Your task to perform on an android device: turn smart compose on in the gmail app Image 0: 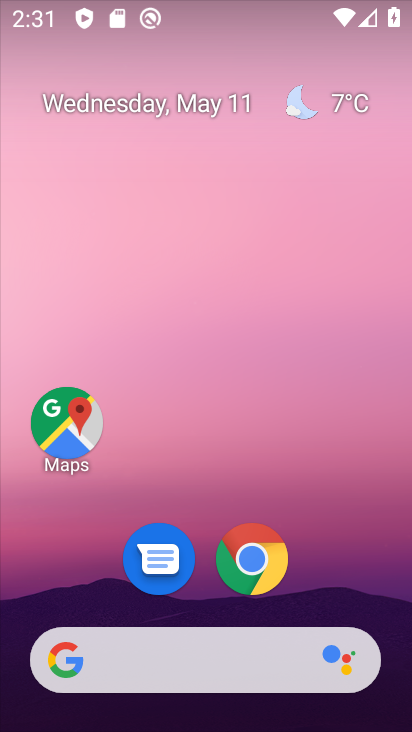
Step 0: drag from (356, 573) to (351, 107)
Your task to perform on an android device: turn smart compose on in the gmail app Image 1: 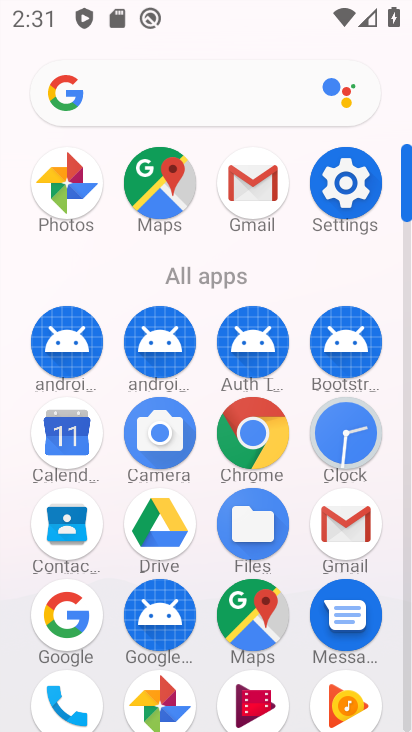
Step 1: click (351, 526)
Your task to perform on an android device: turn smart compose on in the gmail app Image 2: 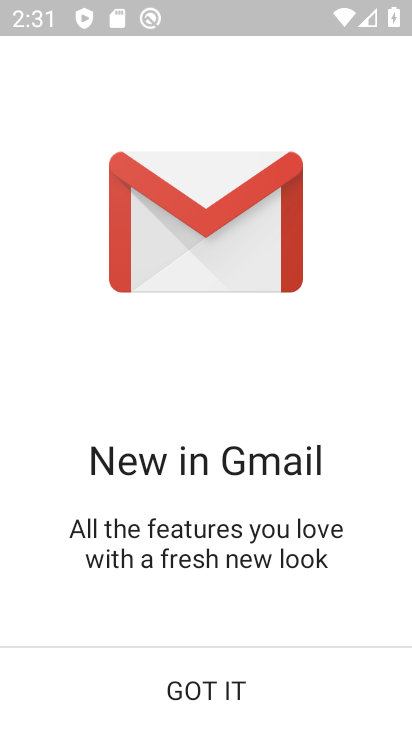
Step 2: click (192, 694)
Your task to perform on an android device: turn smart compose on in the gmail app Image 3: 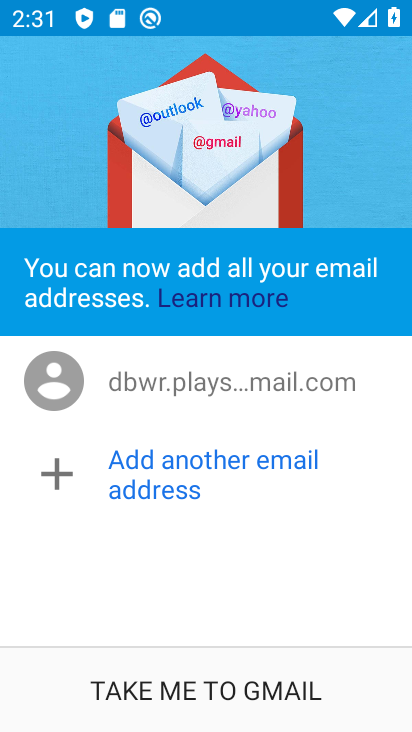
Step 3: click (193, 693)
Your task to perform on an android device: turn smart compose on in the gmail app Image 4: 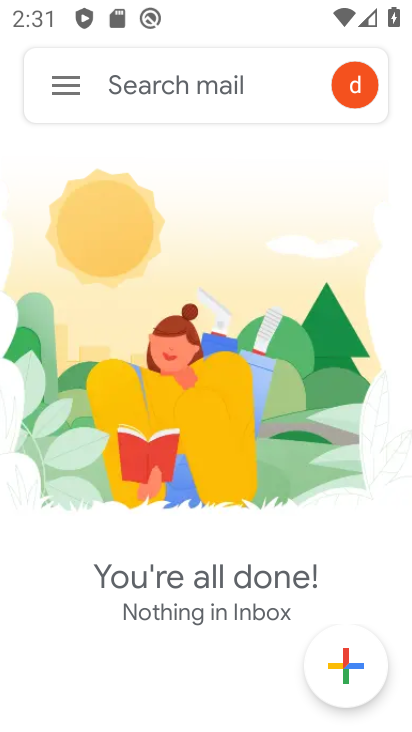
Step 4: click (61, 86)
Your task to perform on an android device: turn smart compose on in the gmail app Image 5: 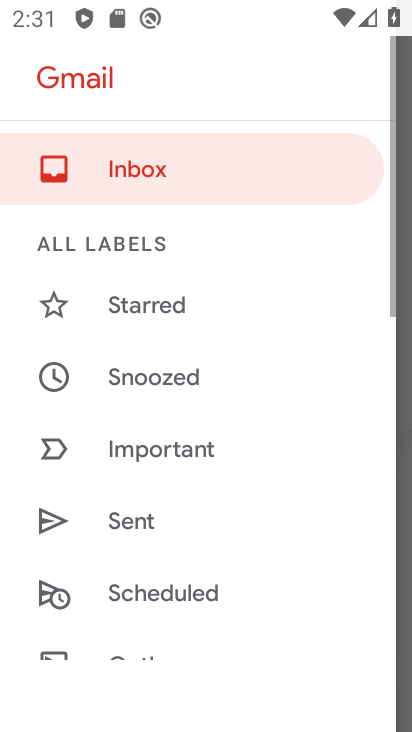
Step 5: drag from (190, 605) to (236, 267)
Your task to perform on an android device: turn smart compose on in the gmail app Image 6: 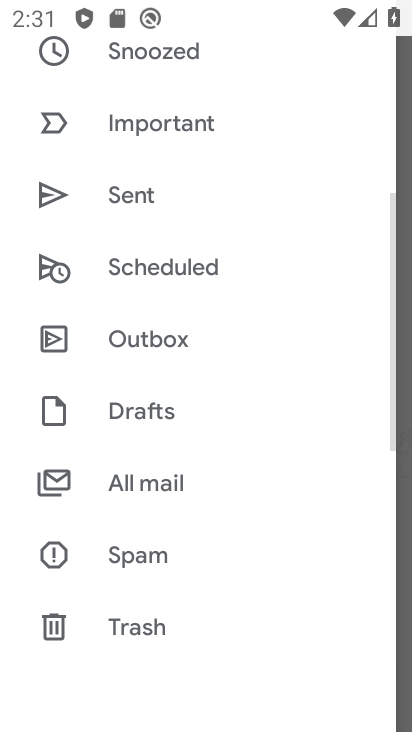
Step 6: drag from (196, 602) to (237, 208)
Your task to perform on an android device: turn smart compose on in the gmail app Image 7: 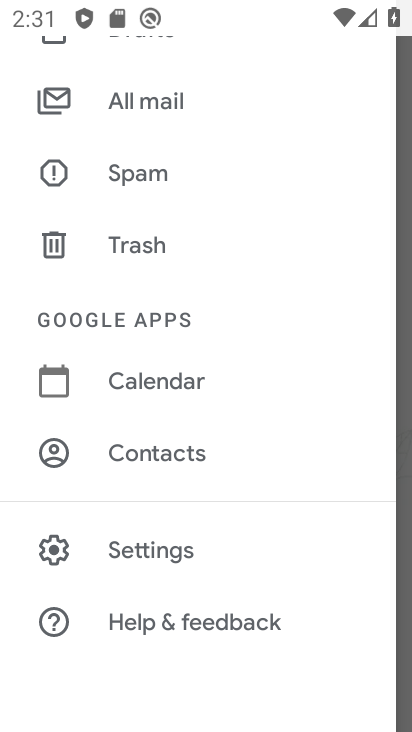
Step 7: click (181, 549)
Your task to perform on an android device: turn smart compose on in the gmail app Image 8: 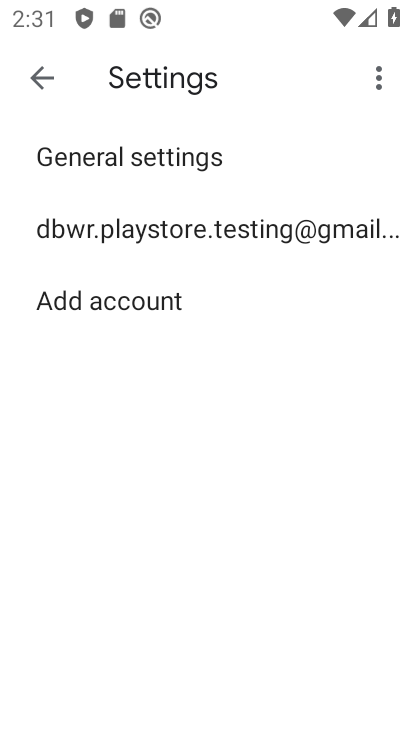
Step 8: click (256, 200)
Your task to perform on an android device: turn smart compose on in the gmail app Image 9: 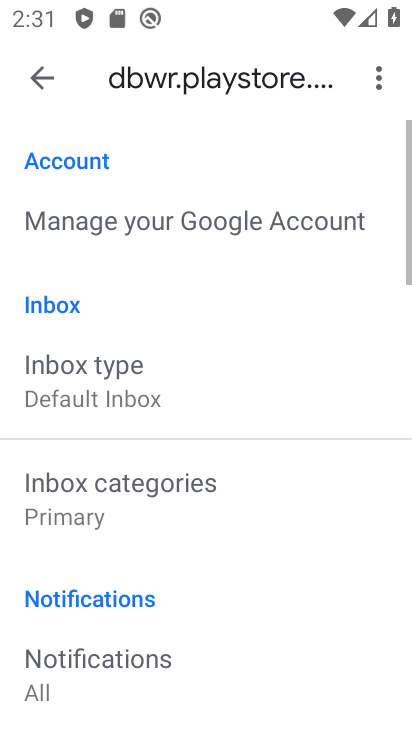
Step 9: task complete